Your task to perform on an android device: set an alarm Image 0: 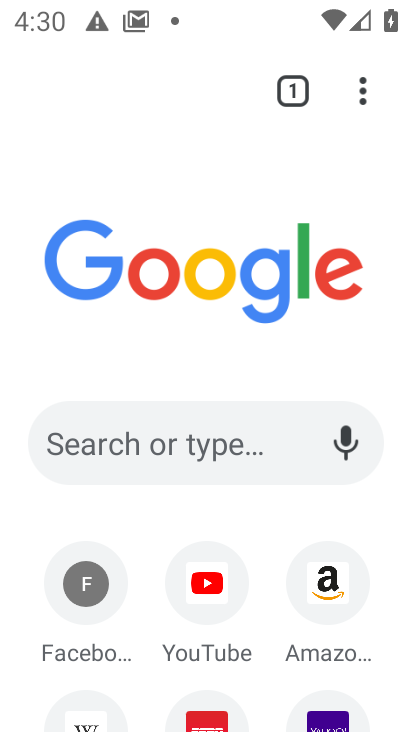
Step 0: press home button
Your task to perform on an android device: set an alarm Image 1: 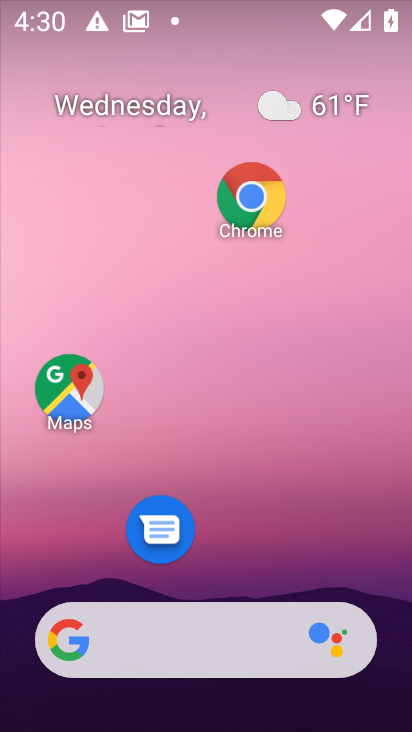
Step 1: drag from (244, 551) to (209, 18)
Your task to perform on an android device: set an alarm Image 2: 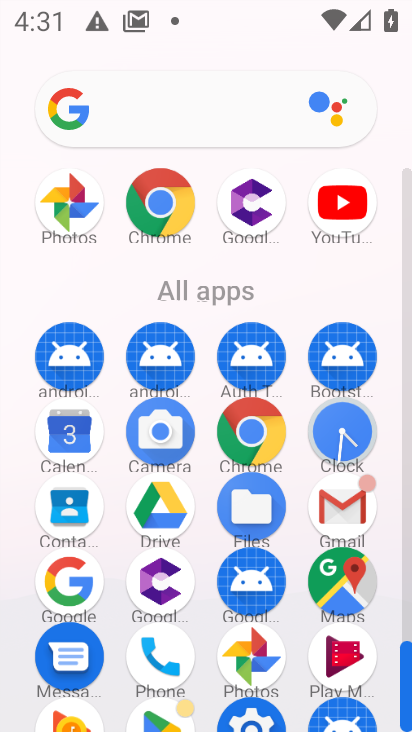
Step 2: click (341, 465)
Your task to perform on an android device: set an alarm Image 3: 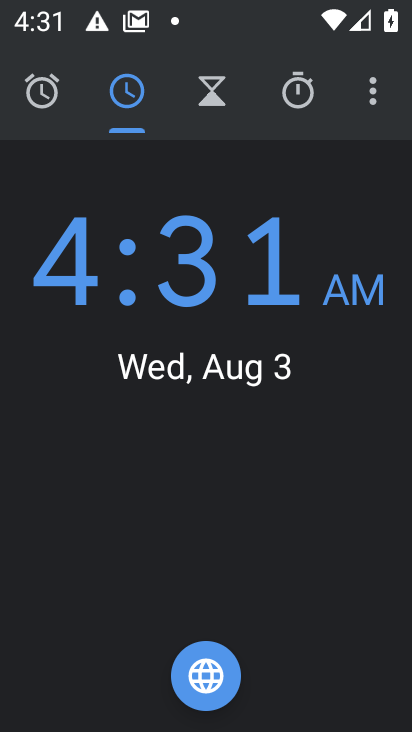
Step 3: click (28, 80)
Your task to perform on an android device: set an alarm Image 4: 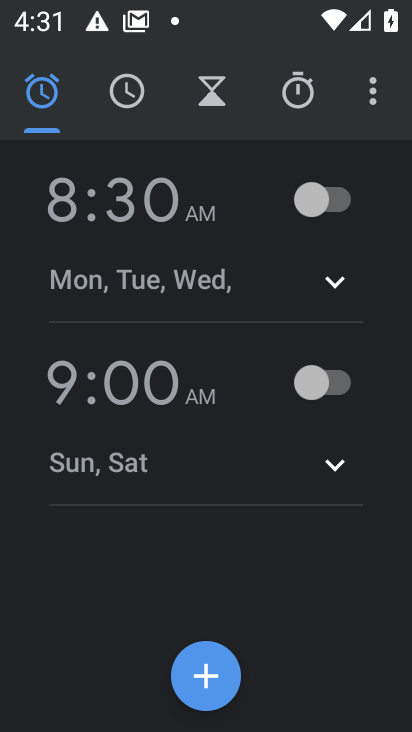
Step 4: click (51, 201)
Your task to perform on an android device: set an alarm Image 5: 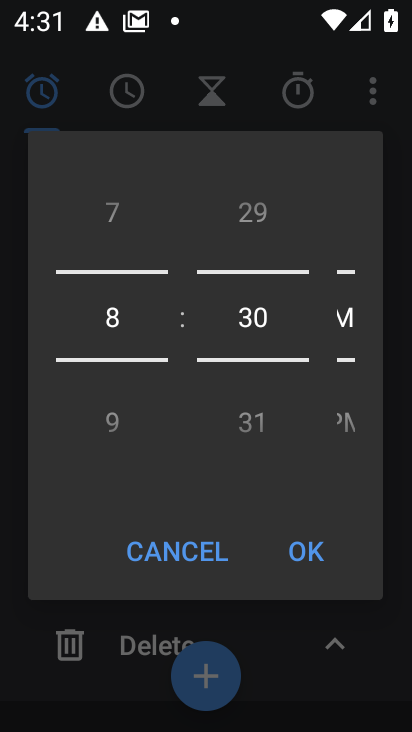
Step 5: click (112, 220)
Your task to perform on an android device: set an alarm Image 6: 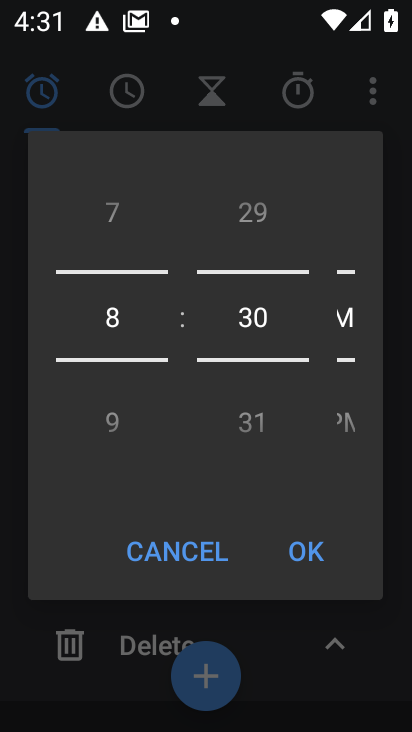
Step 6: click (270, 436)
Your task to perform on an android device: set an alarm Image 7: 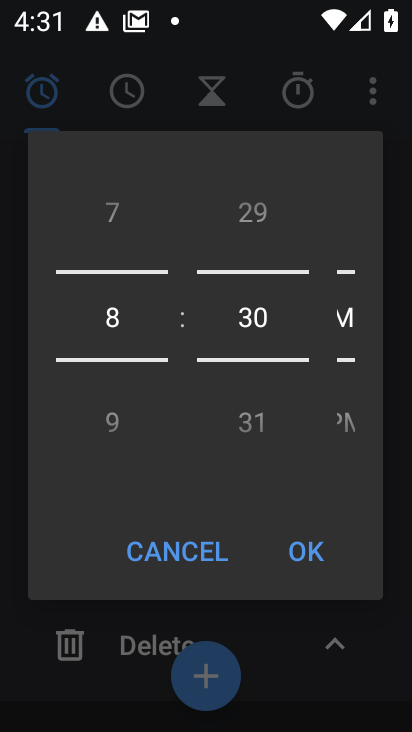
Step 7: click (250, 420)
Your task to perform on an android device: set an alarm Image 8: 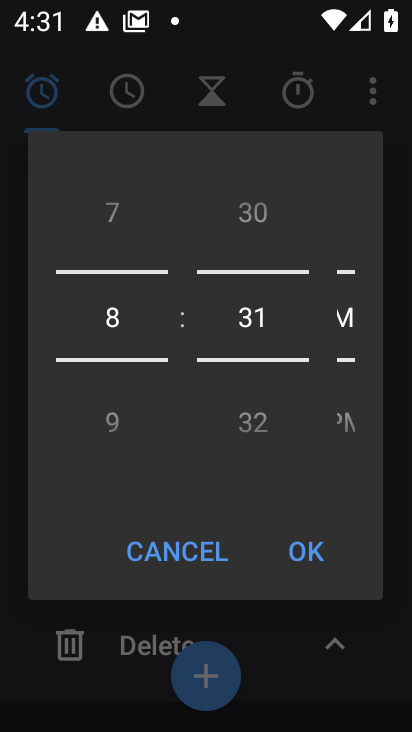
Step 8: click (346, 414)
Your task to perform on an android device: set an alarm Image 9: 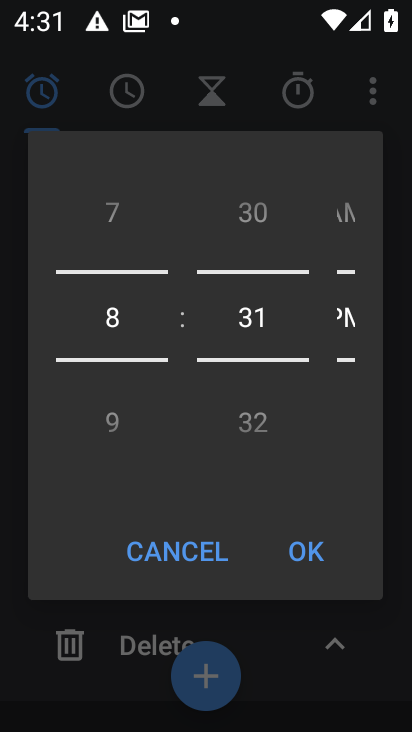
Step 9: click (318, 548)
Your task to perform on an android device: set an alarm Image 10: 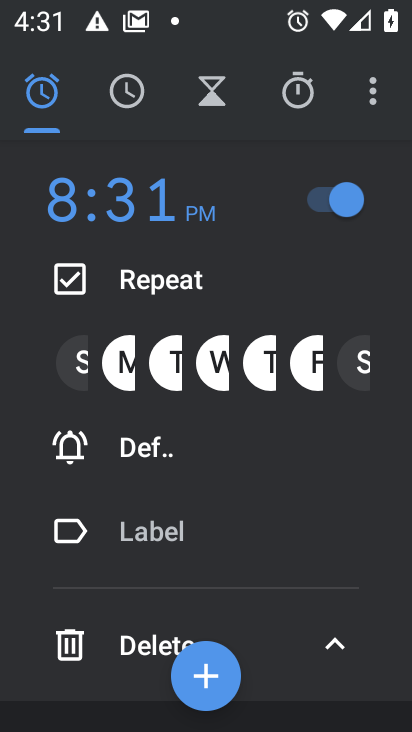
Step 10: task complete